Your task to perform on an android device: turn off airplane mode Image 0: 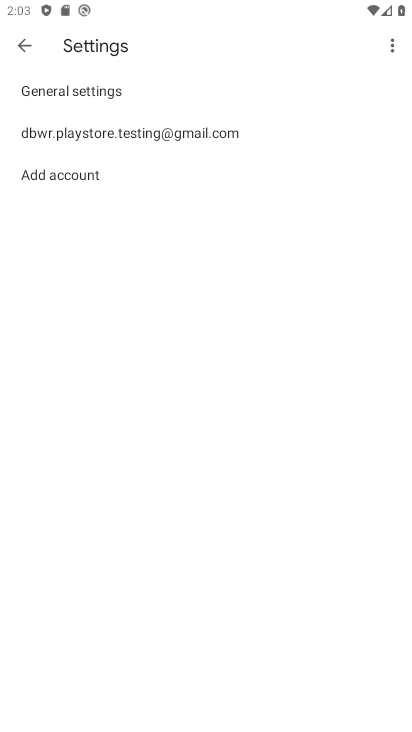
Step 0: drag from (277, 590) to (287, 208)
Your task to perform on an android device: turn off airplane mode Image 1: 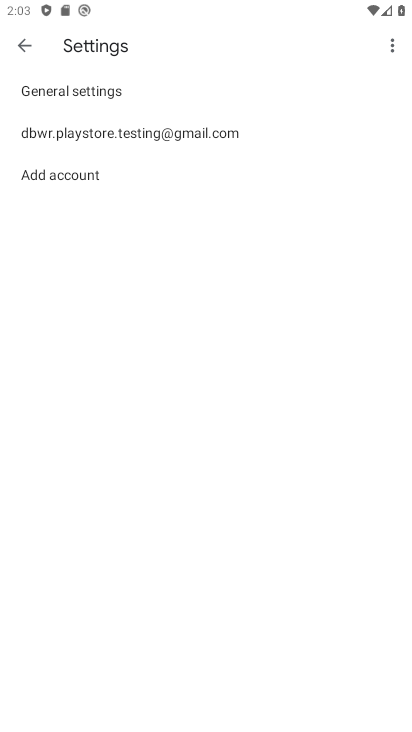
Step 1: press home button
Your task to perform on an android device: turn off airplane mode Image 2: 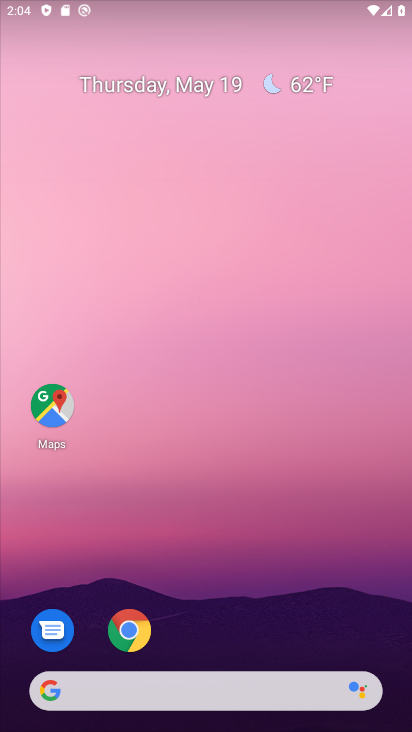
Step 2: drag from (307, 568) to (306, 145)
Your task to perform on an android device: turn off airplane mode Image 3: 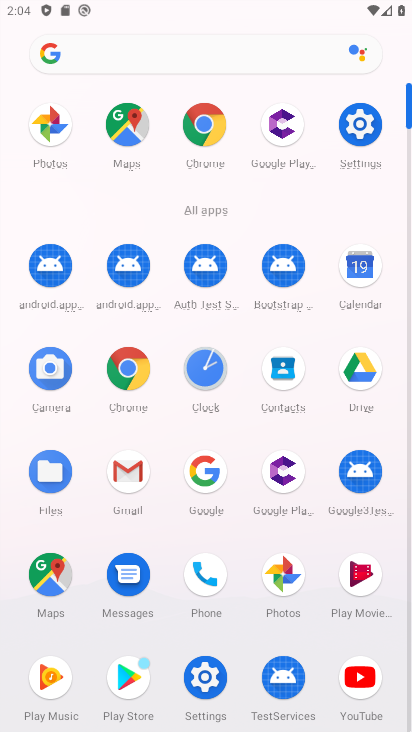
Step 3: click (359, 134)
Your task to perform on an android device: turn off airplane mode Image 4: 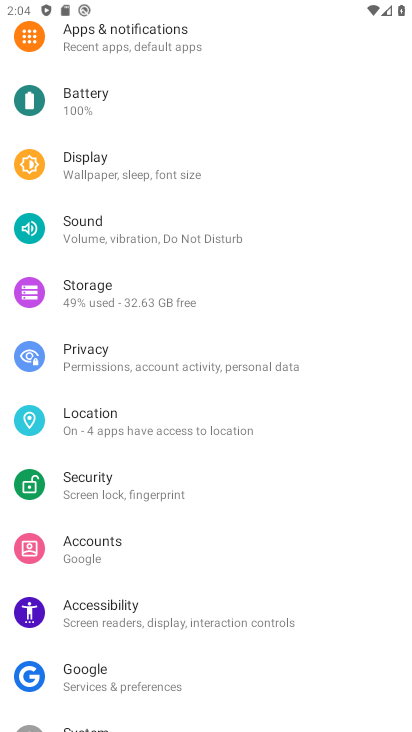
Step 4: drag from (172, 150) to (176, 588)
Your task to perform on an android device: turn off airplane mode Image 5: 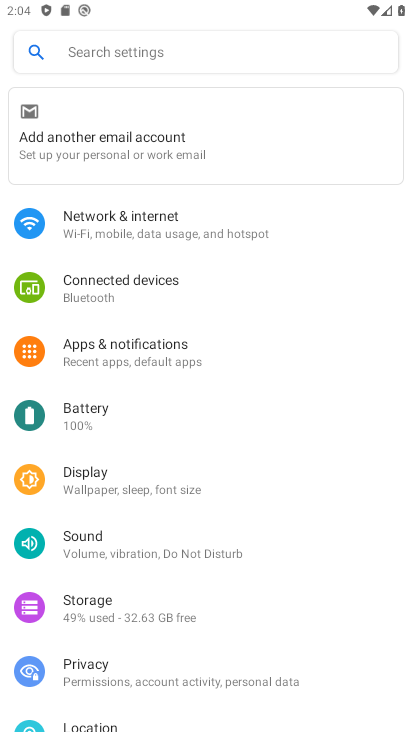
Step 5: click (172, 231)
Your task to perform on an android device: turn off airplane mode Image 6: 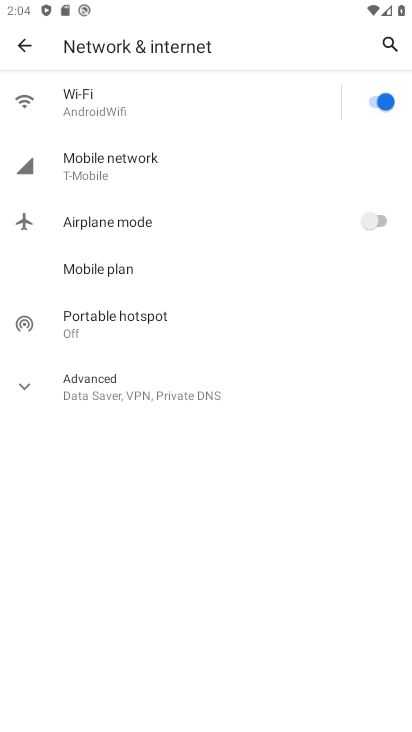
Step 6: task complete